Your task to perform on an android device: find snoozed emails in the gmail app Image 0: 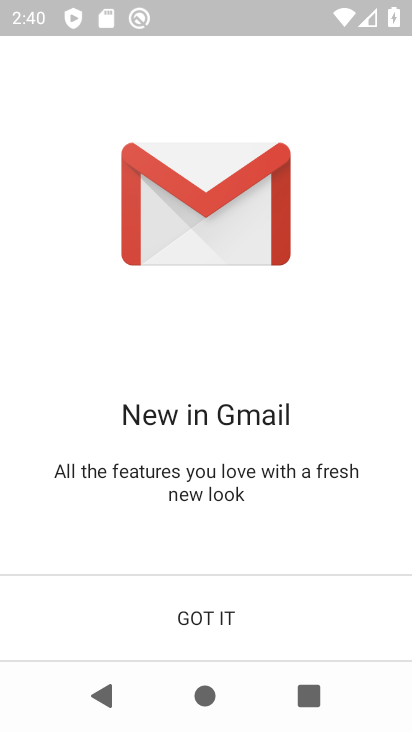
Step 0: click (187, 612)
Your task to perform on an android device: find snoozed emails in the gmail app Image 1: 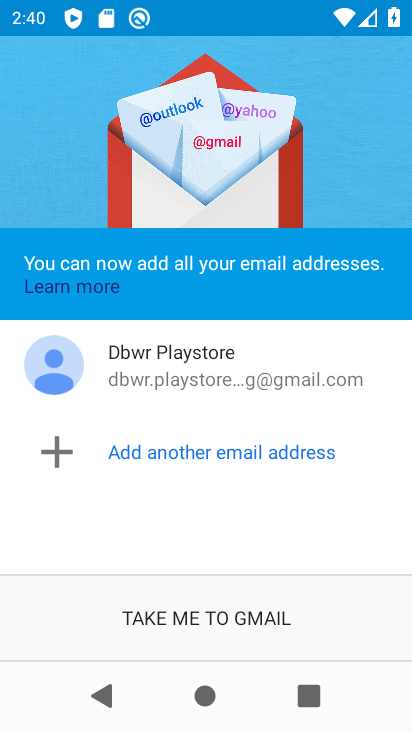
Step 1: click (199, 625)
Your task to perform on an android device: find snoozed emails in the gmail app Image 2: 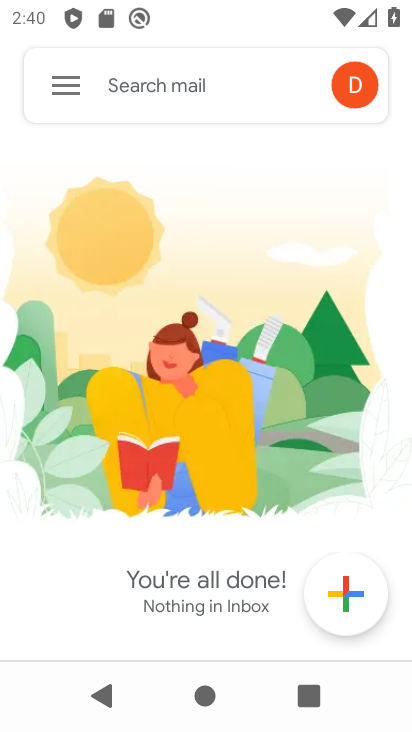
Step 2: click (65, 82)
Your task to perform on an android device: find snoozed emails in the gmail app Image 3: 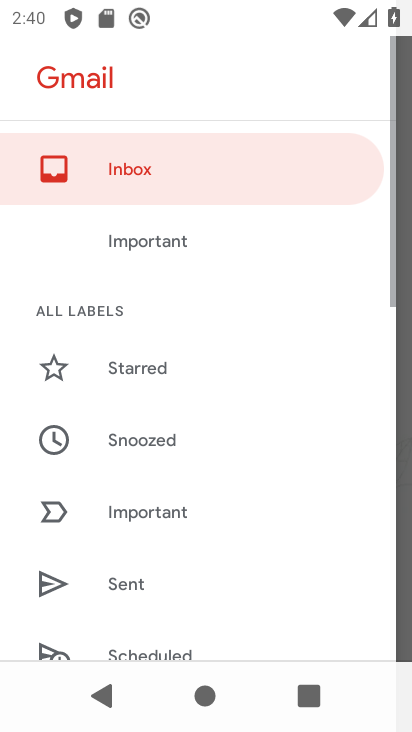
Step 3: drag from (157, 569) to (267, 65)
Your task to perform on an android device: find snoozed emails in the gmail app Image 4: 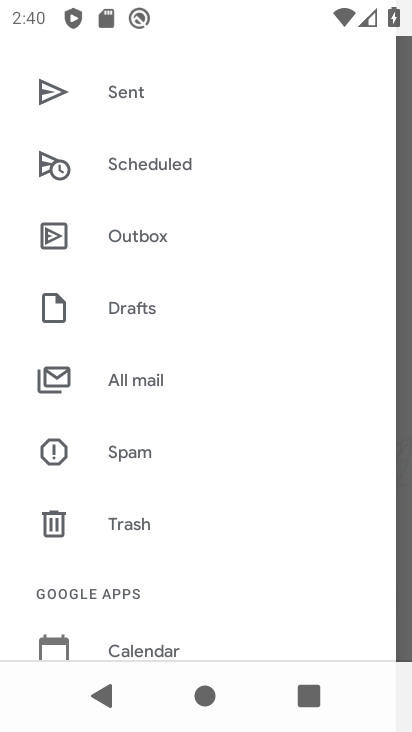
Step 4: drag from (182, 133) to (156, 484)
Your task to perform on an android device: find snoozed emails in the gmail app Image 5: 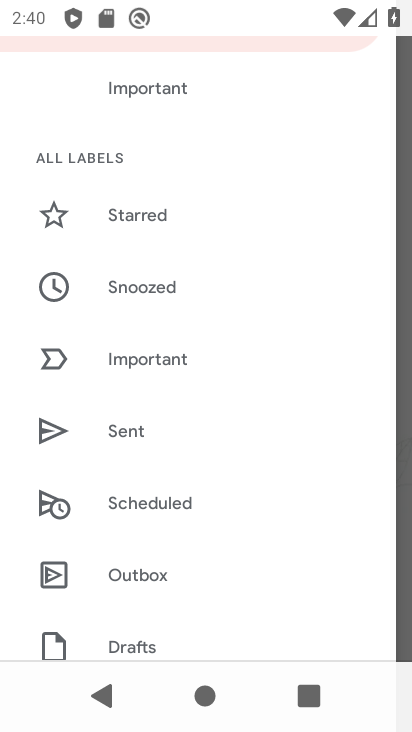
Step 5: click (173, 290)
Your task to perform on an android device: find snoozed emails in the gmail app Image 6: 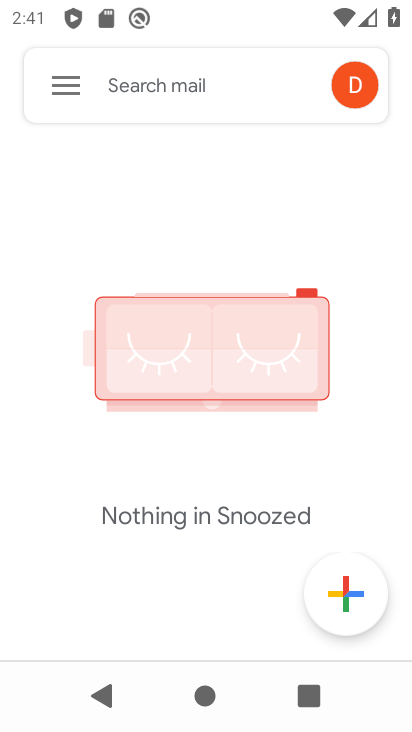
Step 6: task complete